Your task to perform on an android device: Find coffee shops on Maps Image 0: 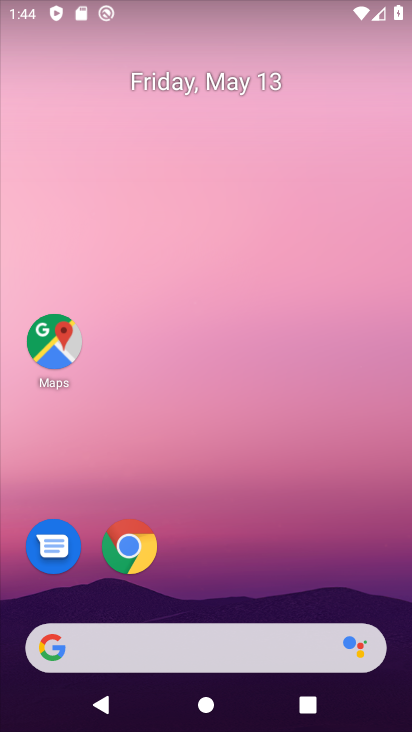
Step 0: click (37, 364)
Your task to perform on an android device: Find coffee shops on Maps Image 1: 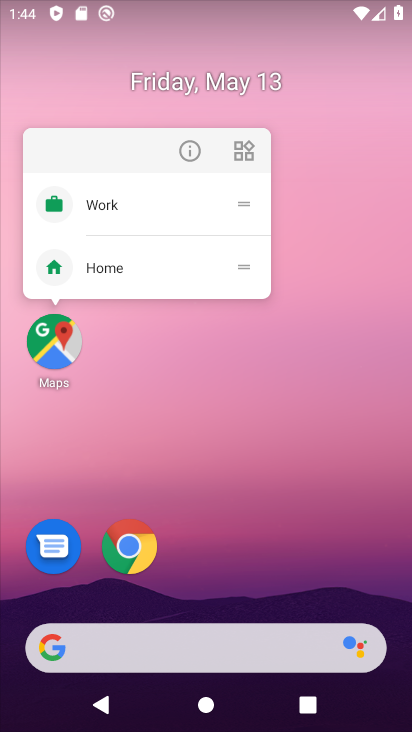
Step 1: click (29, 337)
Your task to perform on an android device: Find coffee shops on Maps Image 2: 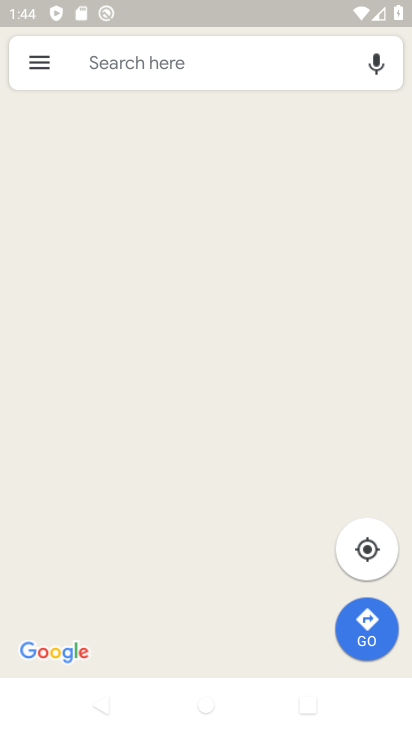
Step 2: click (261, 80)
Your task to perform on an android device: Find coffee shops on Maps Image 3: 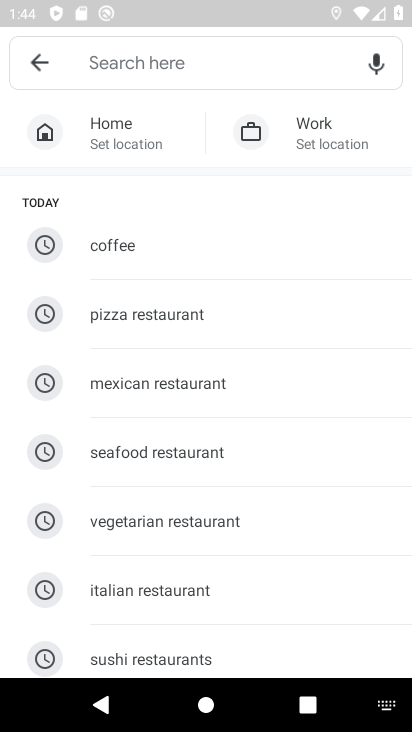
Step 3: type "coffee shops"
Your task to perform on an android device: Find coffee shops on Maps Image 4: 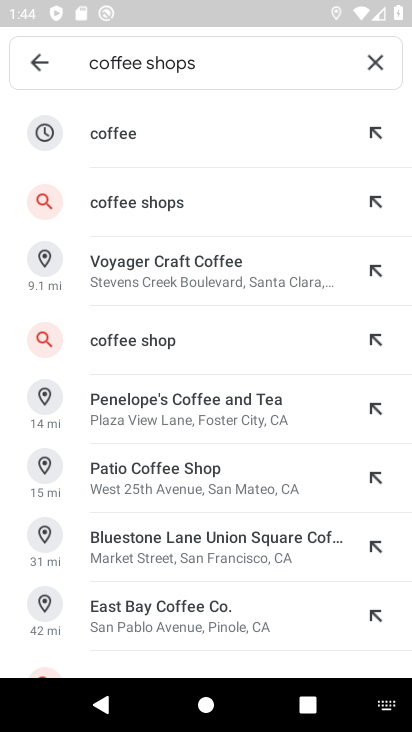
Step 4: click (144, 200)
Your task to perform on an android device: Find coffee shops on Maps Image 5: 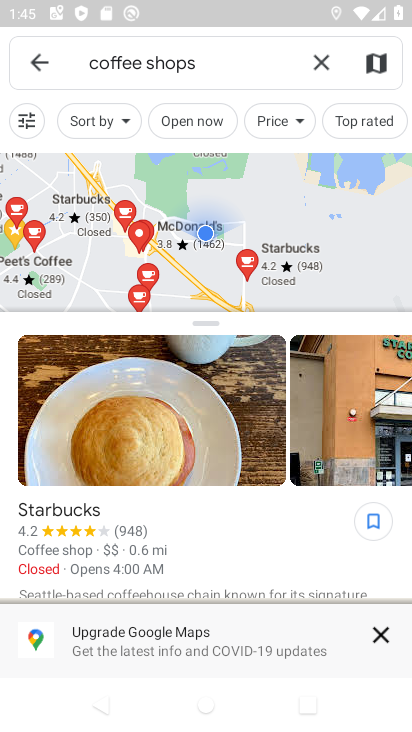
Step 5: task complete